Your task to perform on an android device: What's the weather like in New York? Image 0: 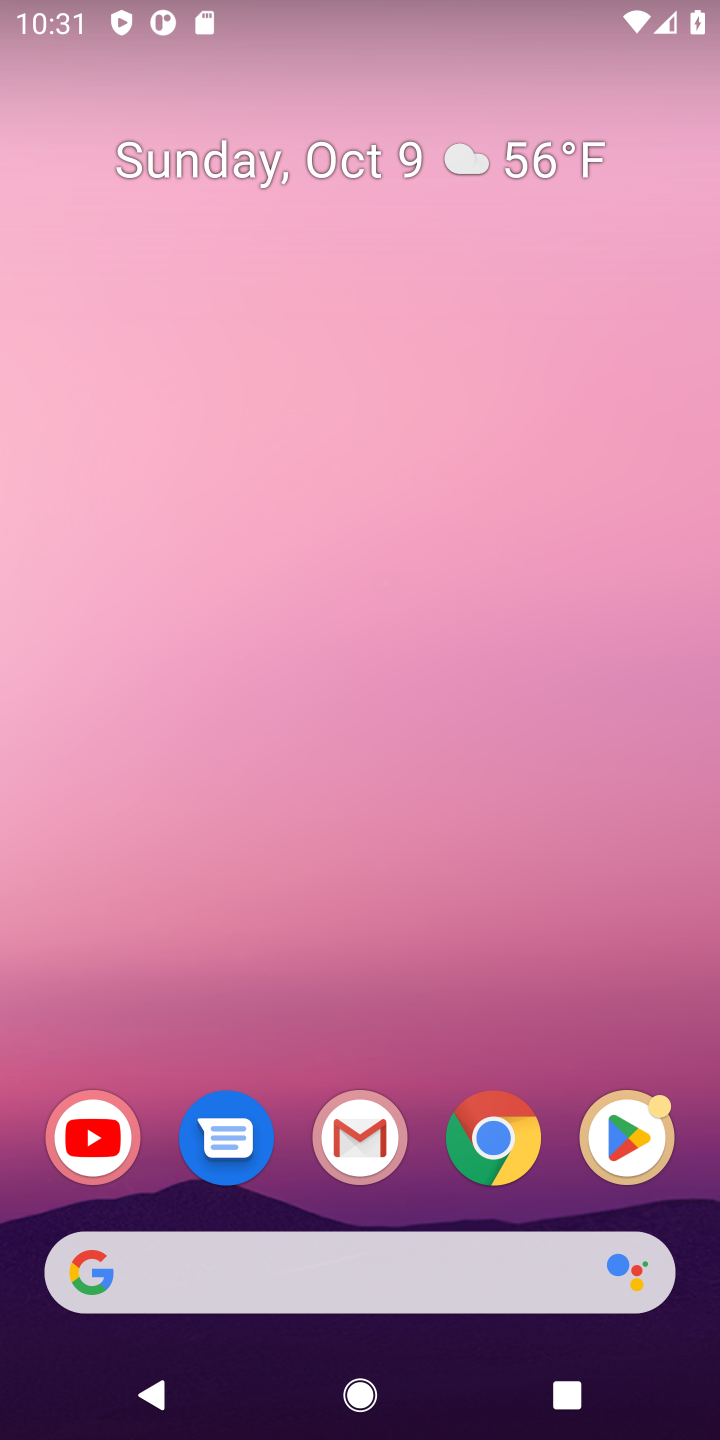
Step 0: drag from (384, 1041) to (418, 66)
Your task to perform on an android device: What's the weather like in New York? Image 1: 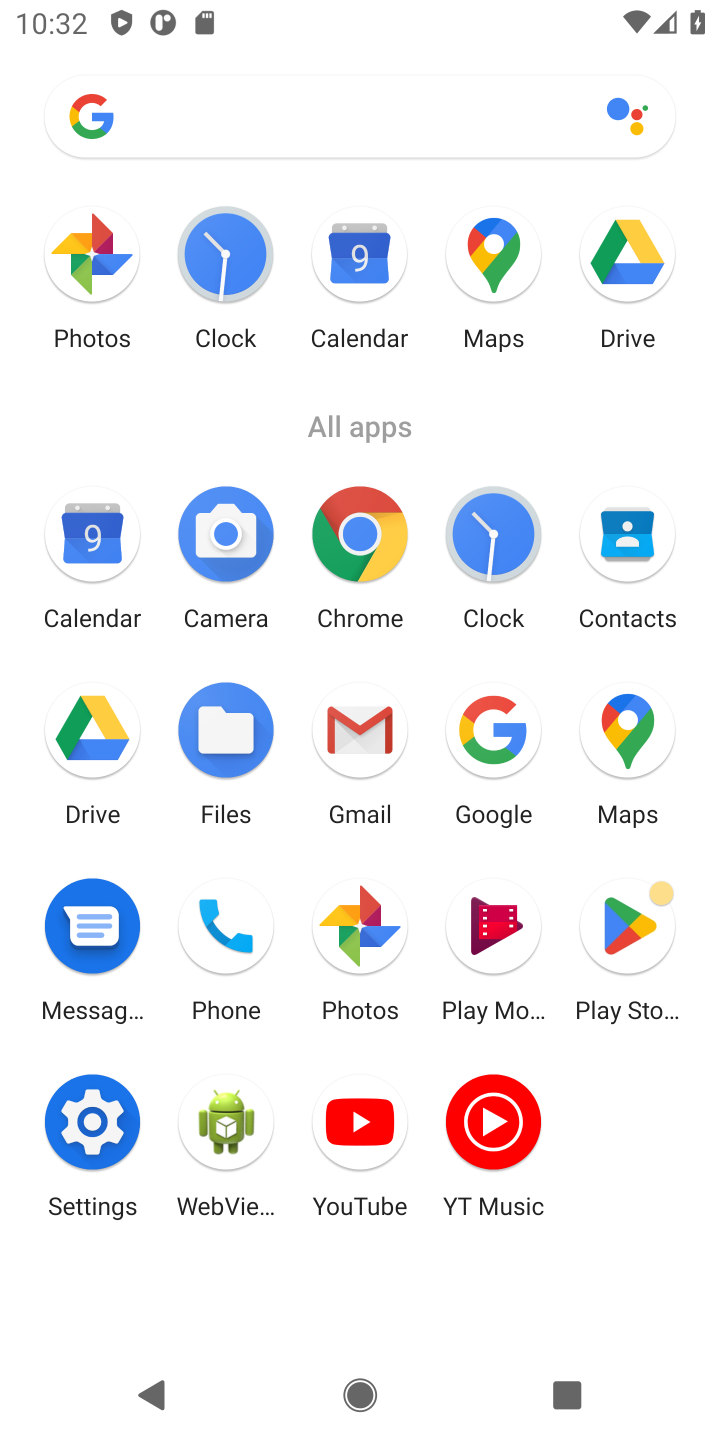
Step 1: click (360, 529)
Your task to perform on an android device: What's the weather like in New York? Image 2: 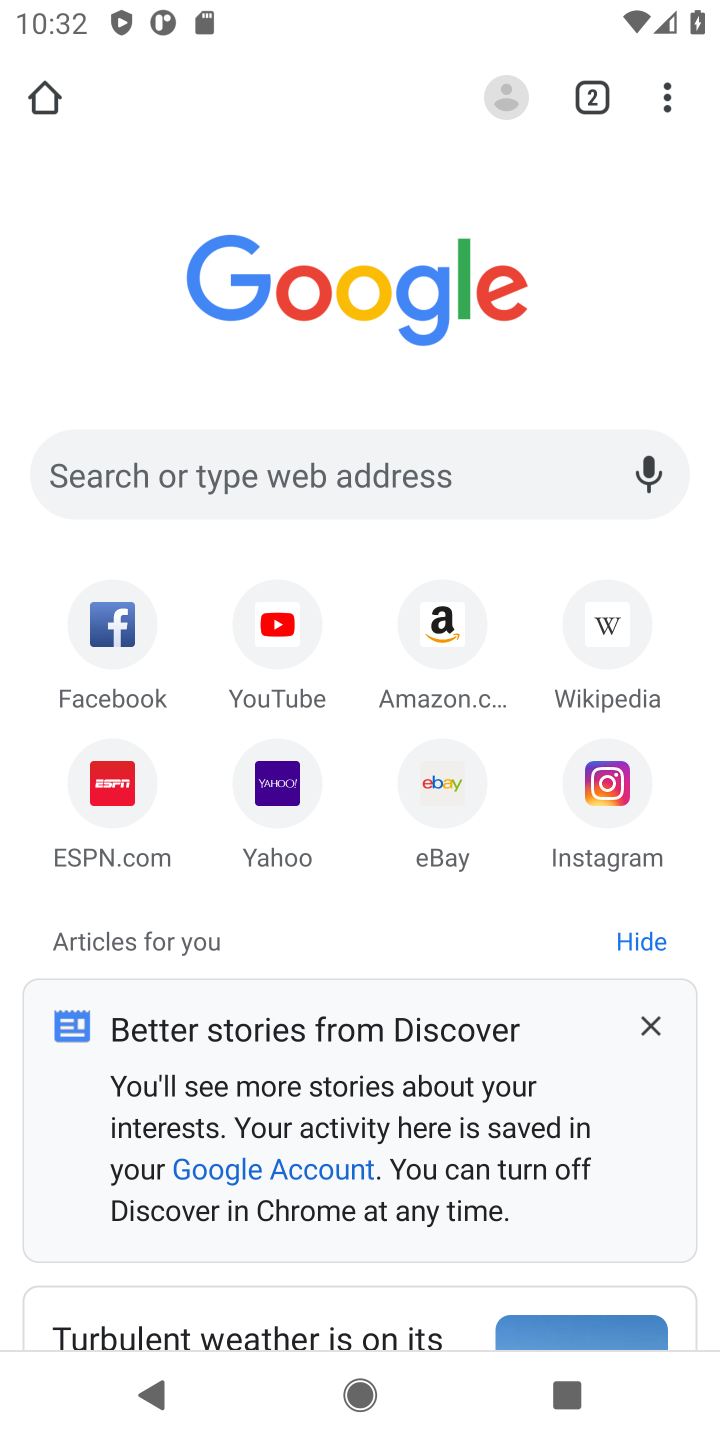
Step 2: click (109, 484)
Your task to perform on an android device: What's the weather like in New York? Image 3: 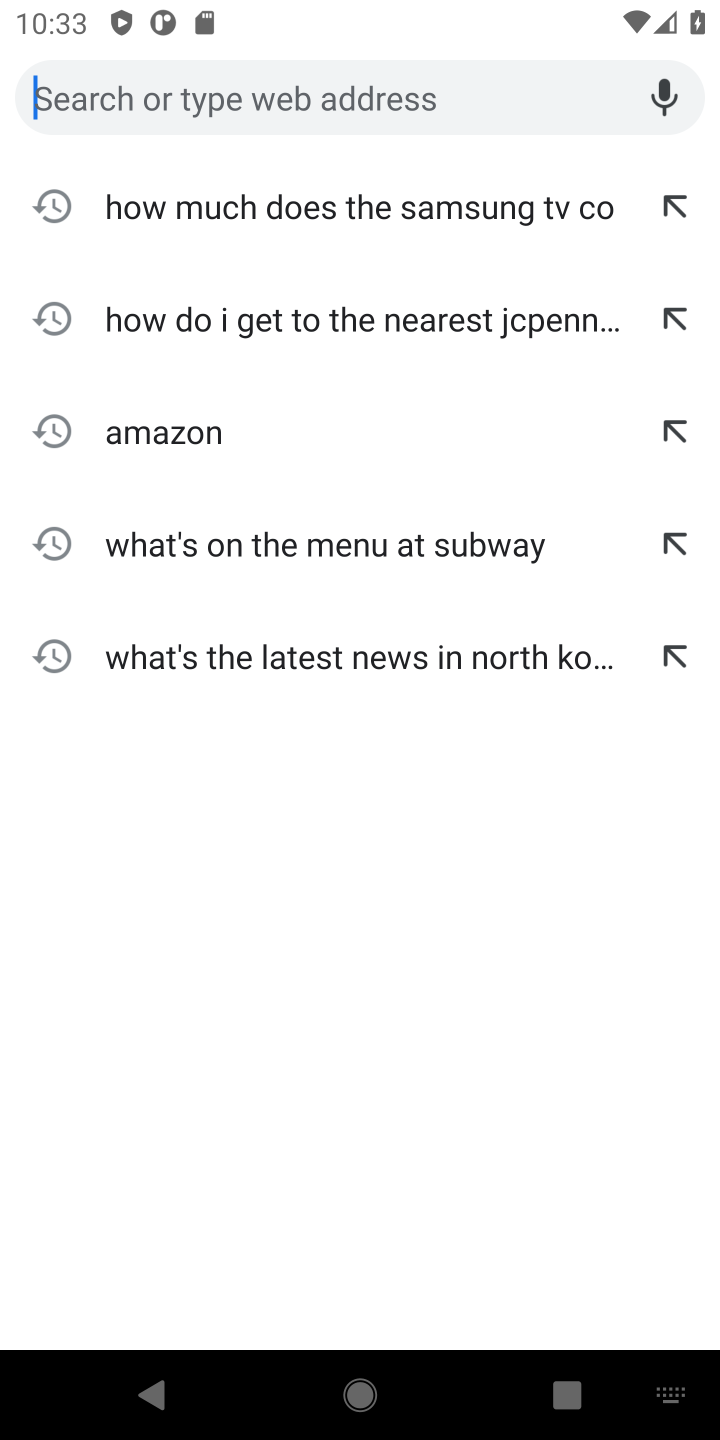
Step 3: type "What's the weather like in New York?"
Your task to perform on an android device: What's the weather like in New York? Image 4: 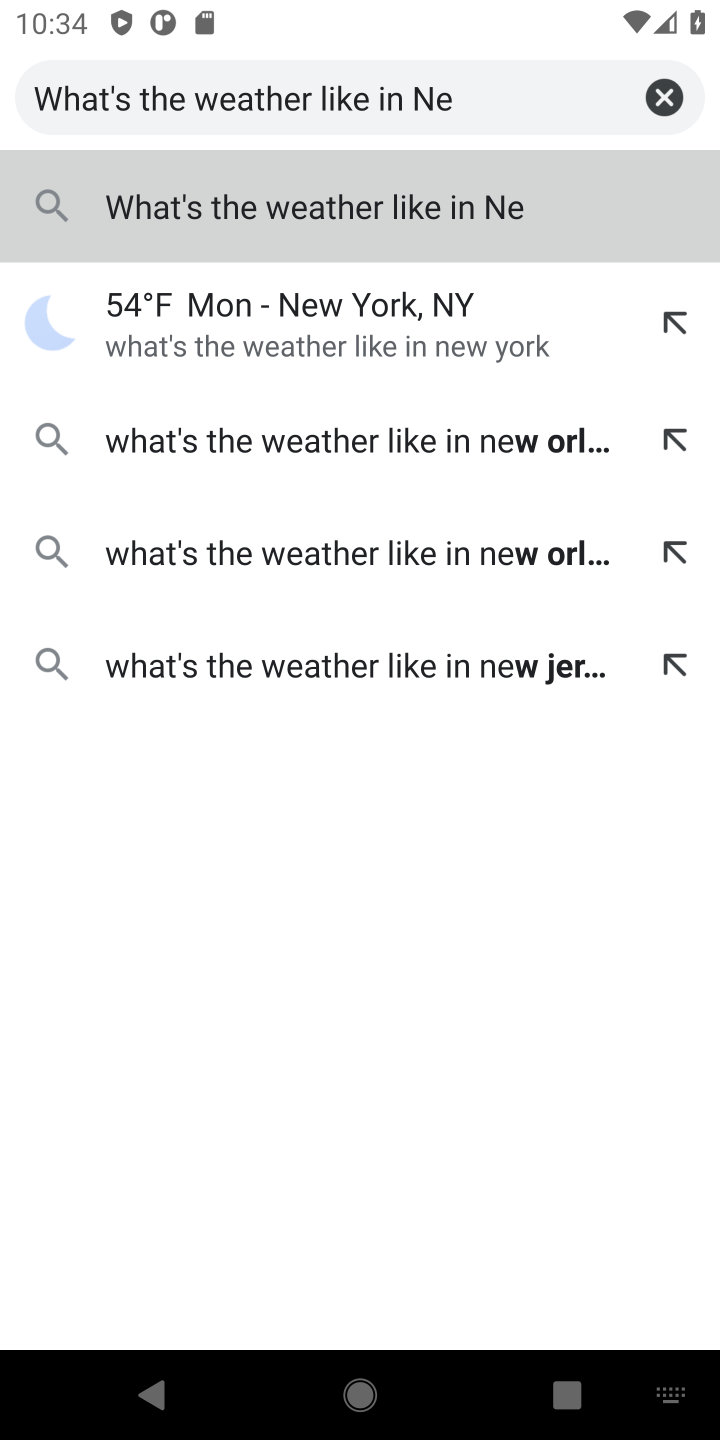
Step 4: click (491, 193)
Your task to perform on an android device: What's the weather like in New York? Image 5: 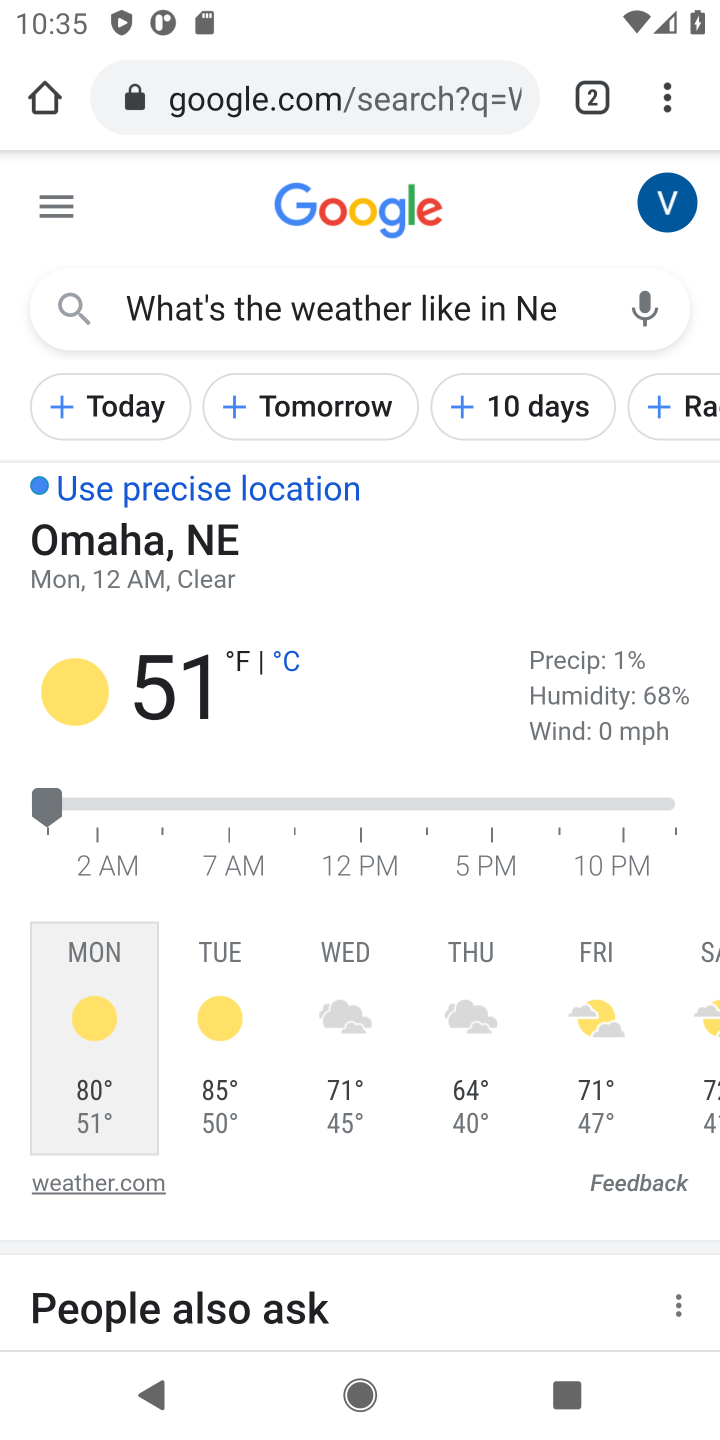
Step 5: task complete